Your task to perform on an android device: Go to settings Image 0: 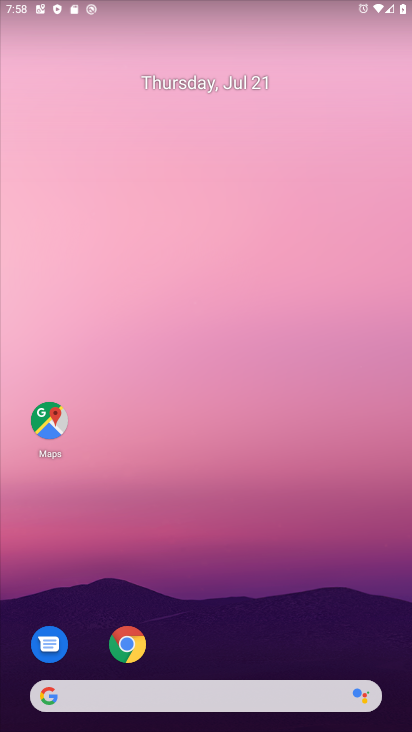
Step 0: drag from (86, 639) to (114, 265)
Your task to perform on an android device: Go to settings Image 1: 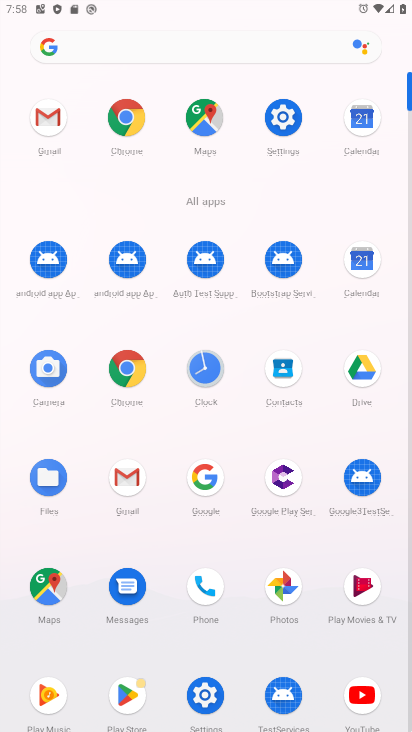
Step 1: click (283, 111)
Your task to perform on an android device: Go to settings Image 2: 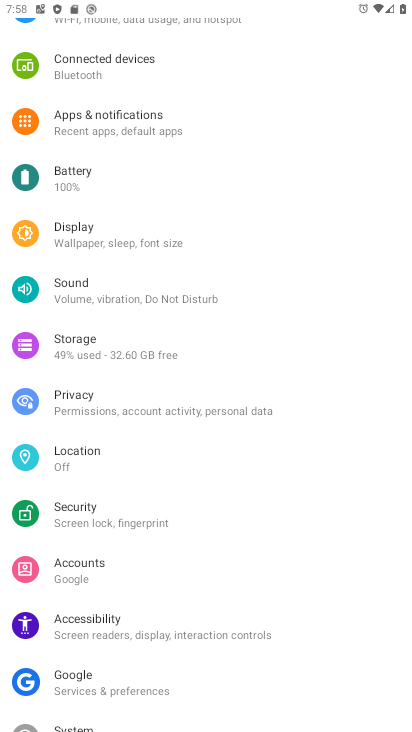
Step 2: task complete